Your task to perform on an android device: allow cookies in the chrome app Image 0: 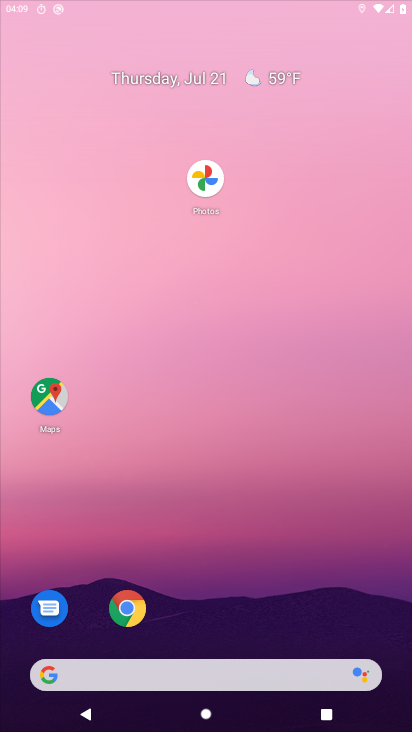
Step 0: press home button
Your task to perform on an android device: allow cookies in the chrome app Image 1: 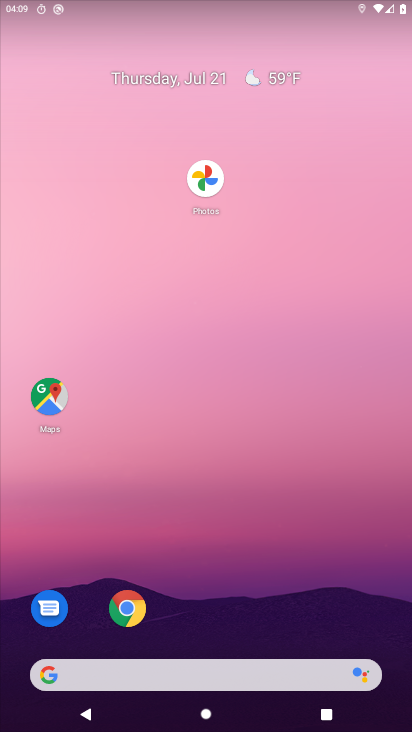
Step 1: click (130, 617)
Your task to perform on an android device: allow cookies in the chrome app Image 2: 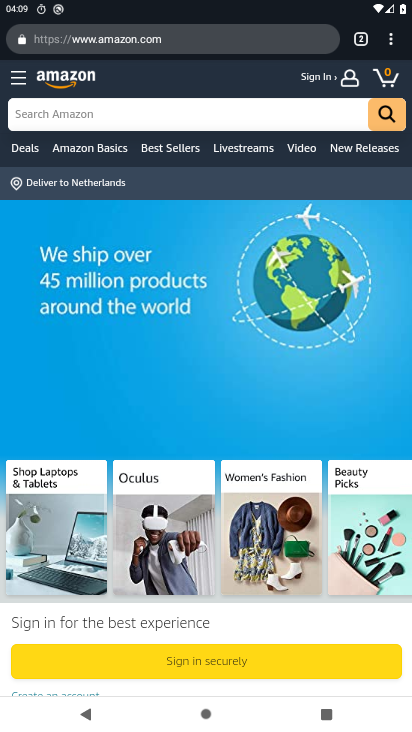
Step 2: click (395, 39)
Your task to perform on an android device: allow cookies in the chrome app Image 3: 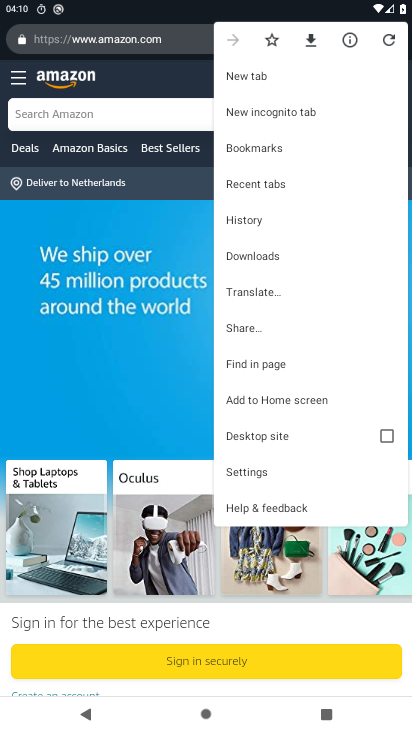
Step 3: click (275, 468)
Your task to perform on an android device: allow cookies in the chrome app Image 4: 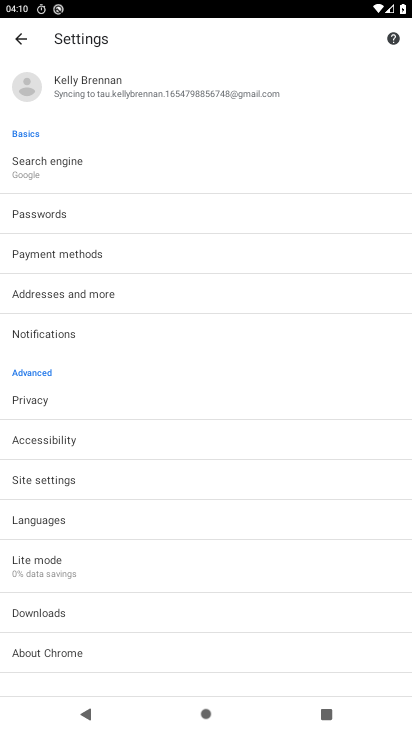
Step 4: click (91, 480)
Your task to perform on an android device: allow cookies in the chrome app Image 5: 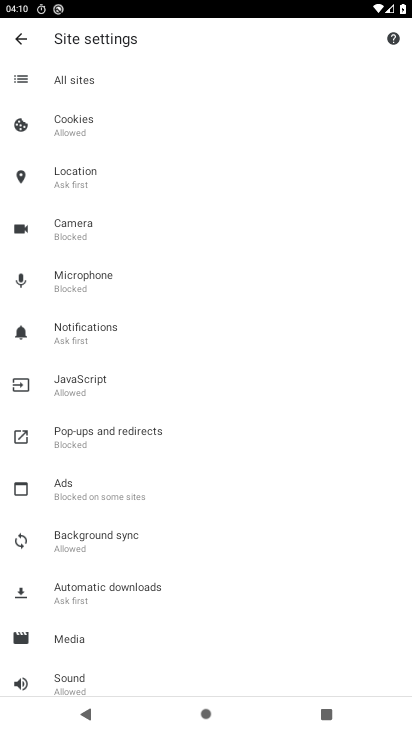
Step 5: click (100, 121)
Your task to perform on an android device: allow cookies in the chrome app Image 6: 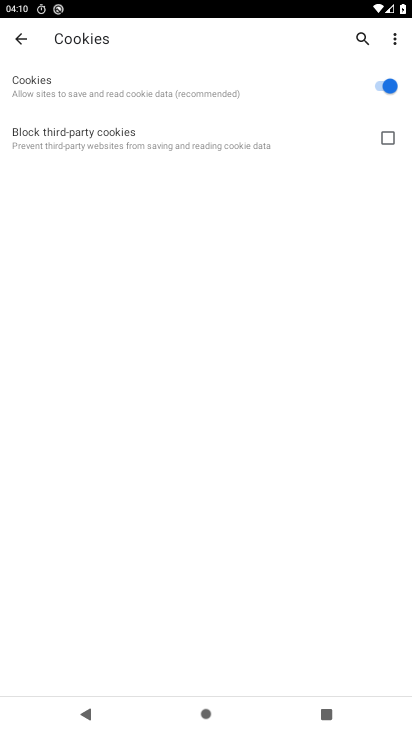
Step 6: task complete